Your task to perform on an android device: Go to ESPN.com Image 0: 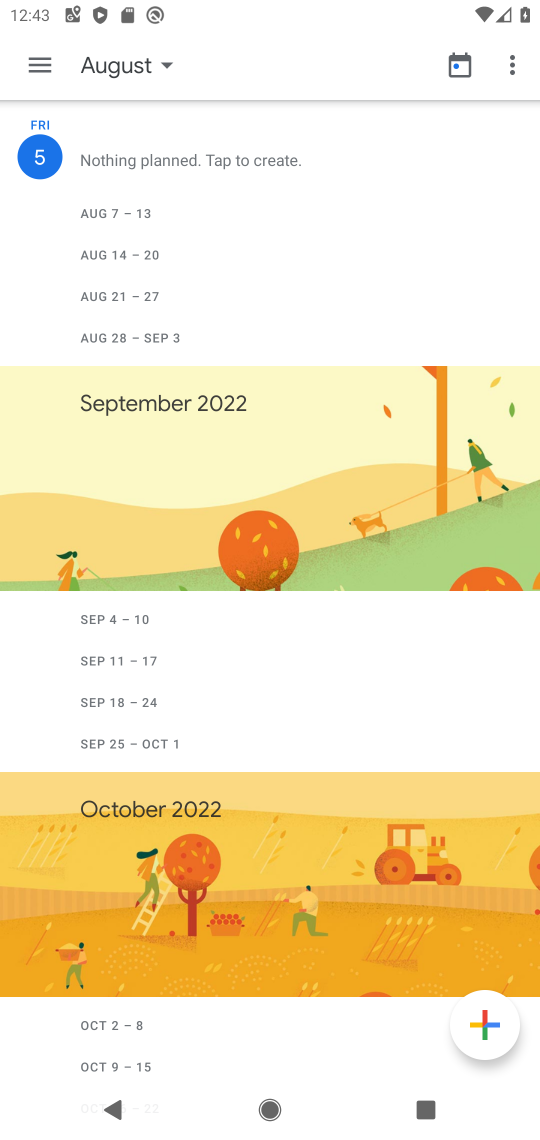
Step 0: press home button
Your task to perform on an android device: Go to ESPN.com Image 1: 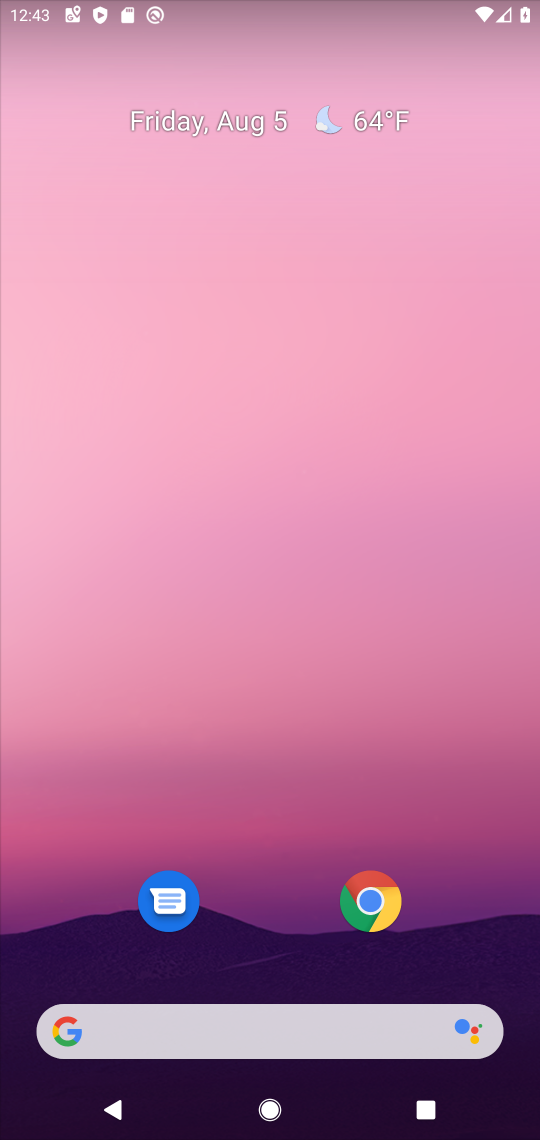
Step 1: click (388, 897)
Your task to perform on an android device: Go to ESPN.com Image 2: 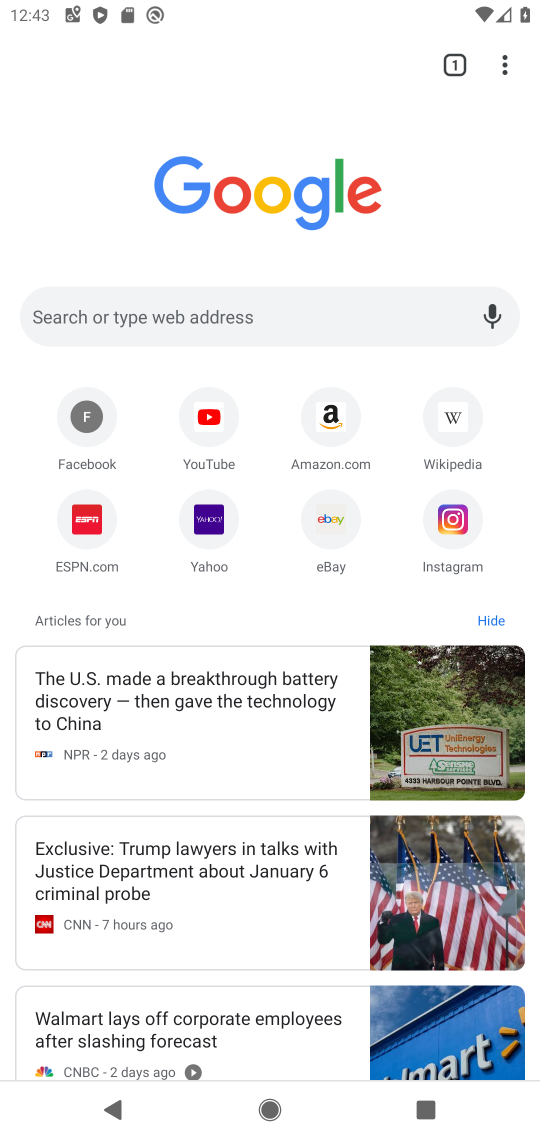
Step 2: click (92, 525)
Your task to perform on an android device: Go to ESPN.com Image 3: 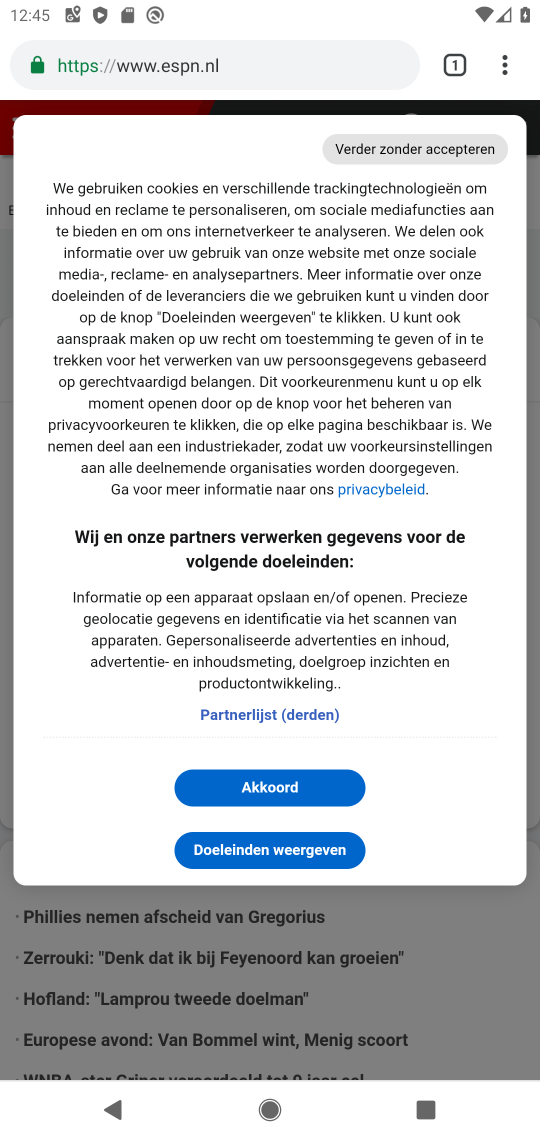
Step 3: click (262, 789)
Your task to perform on an android device: Go to ESPN.com Image 4: 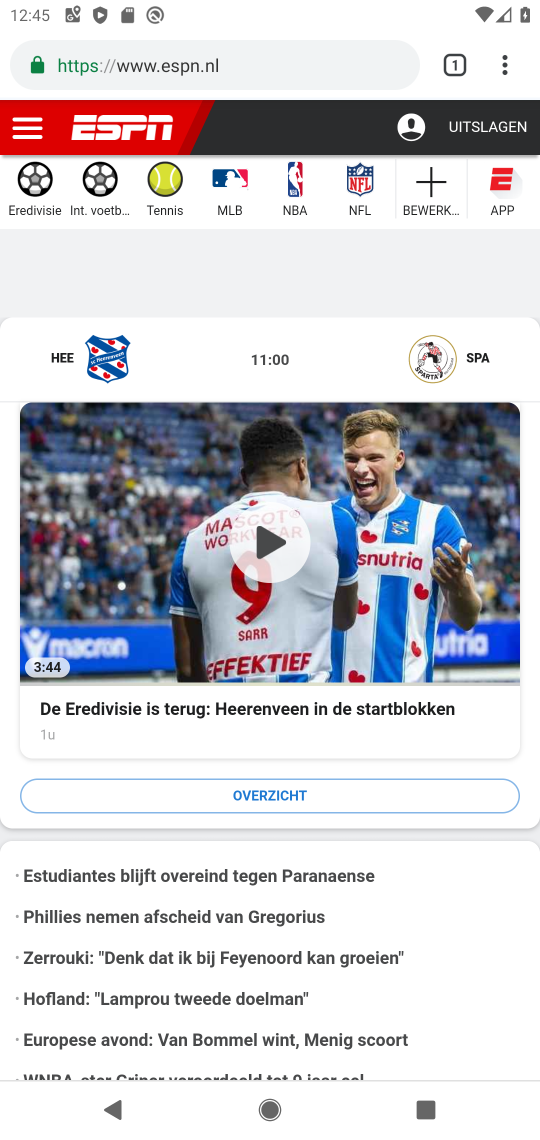
Step 4: task complete